Your task to perform on an android device: Add apple airpods to the cart on target, then select checkout. Image 0: 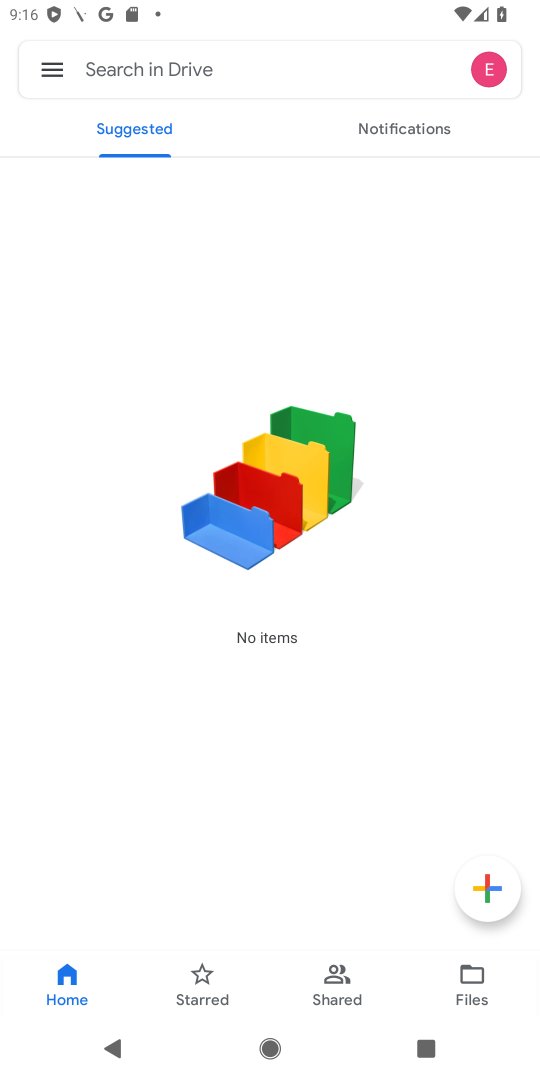
Step 0: press home button
Your task to perform on an android device: Add apple airpods to the cart on target, then select checkout. Image 1: 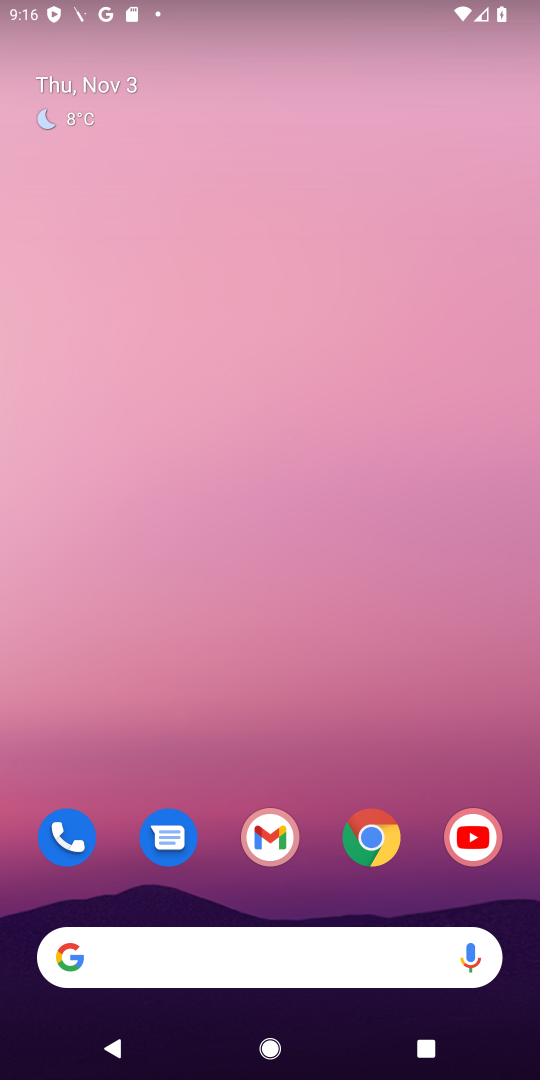
Step 1: click (360, 835)
Your task to perform on an android device: Add apple airpods to the cart on target, then select checkout. Image 2: 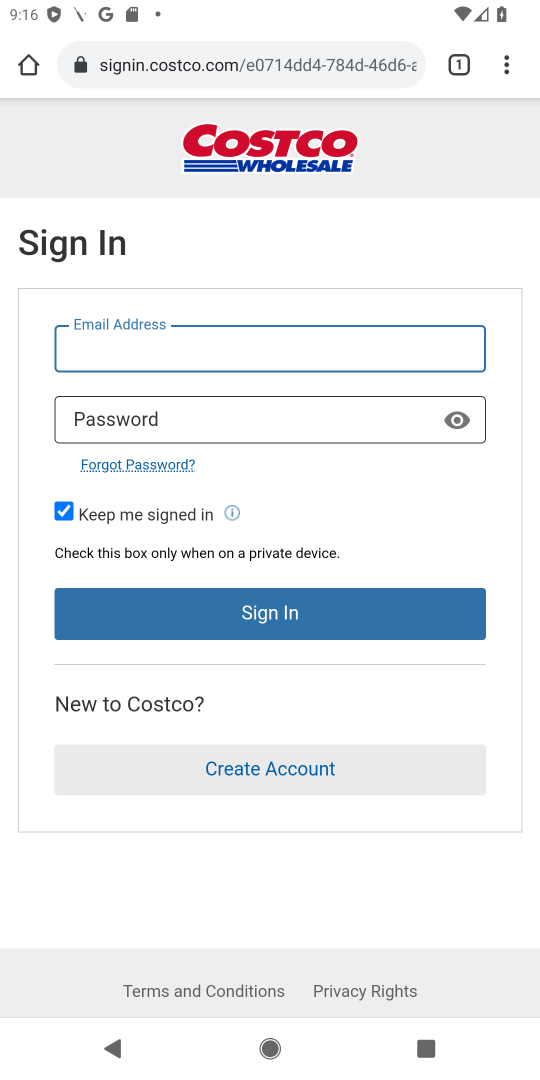
Step 2: click (318, 62)
Your task to perform on an android device: Add apple airpods to the cart on target, then select checkout. Image 3: 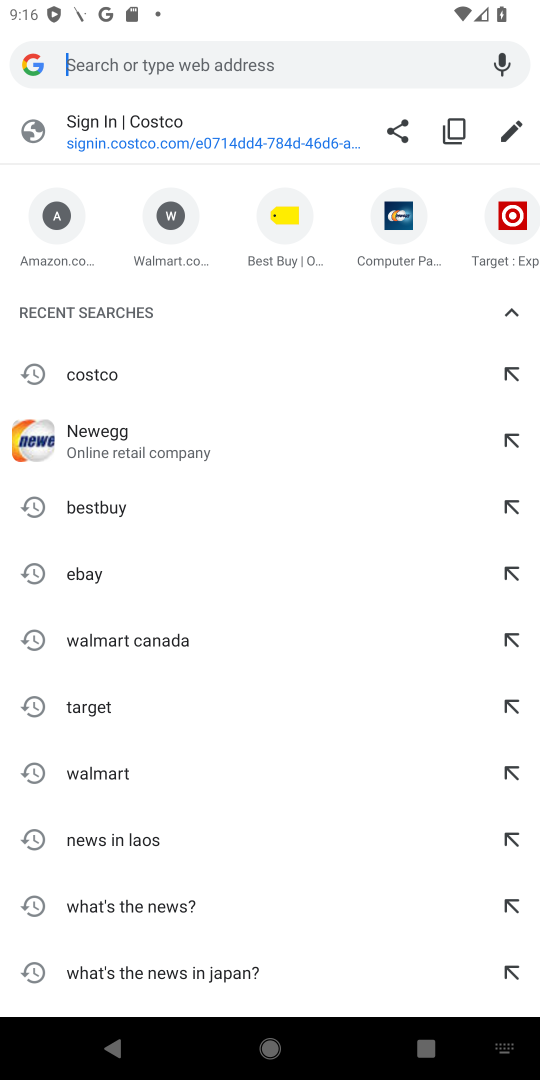
Step 3: click (78, 704)
Your task to perform on an android device: Add apple airpods to the cart on target, then select checkout. Image 4: 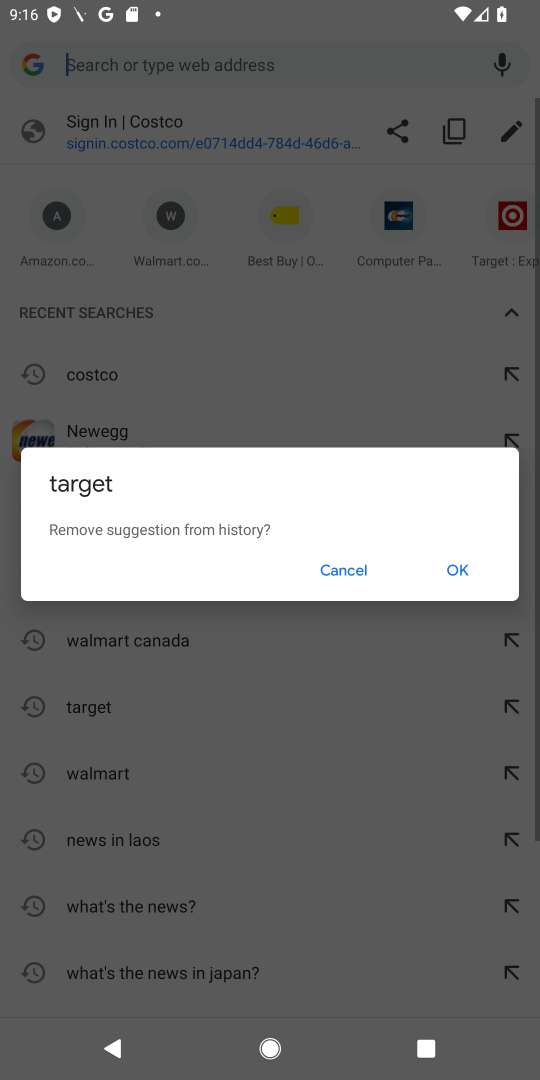
Step 4: click (356, 572)
Your task to perform on an android device: Add apple airpods to the cart on target, then select checkout. Image 5: 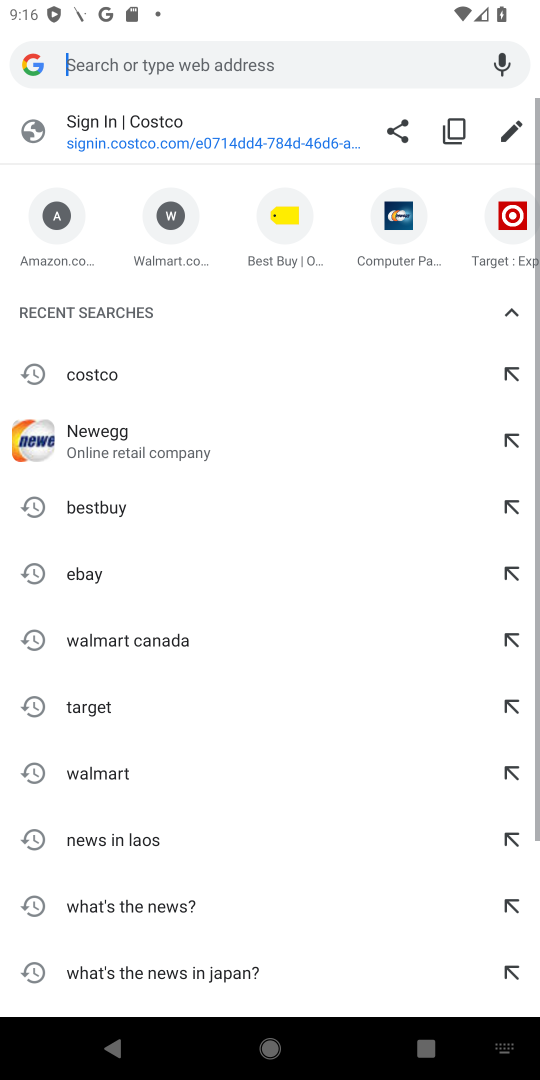
Step 5: click (95, 708)
Your task to perform on an android device: Add apple airpods to the cart on target, then select checkout. Image 6: 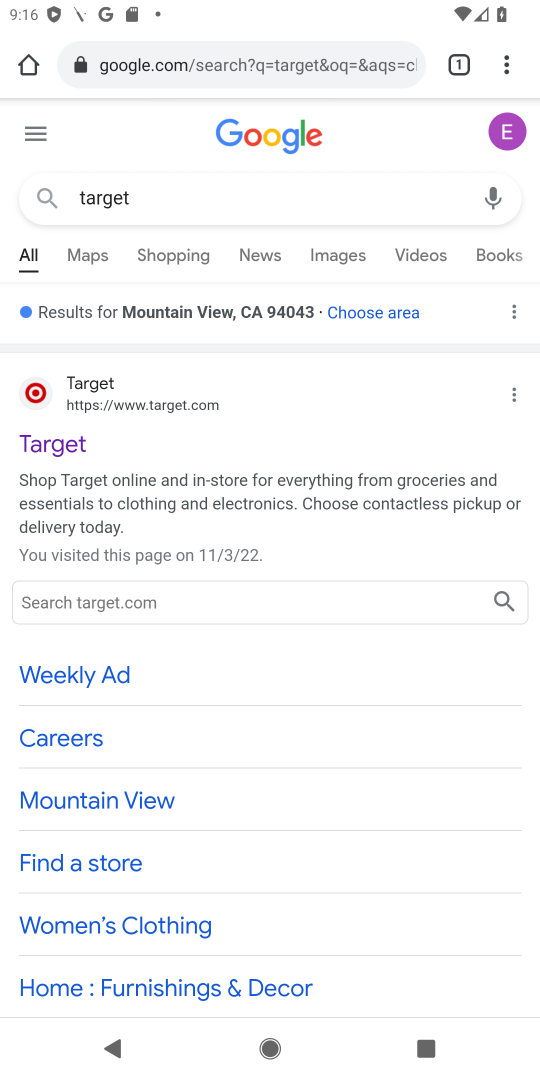
Step 6: click (63, 445)
Your task to perform on an android device: Add apple airpods to the cart on target, then select checkout. Image 7: 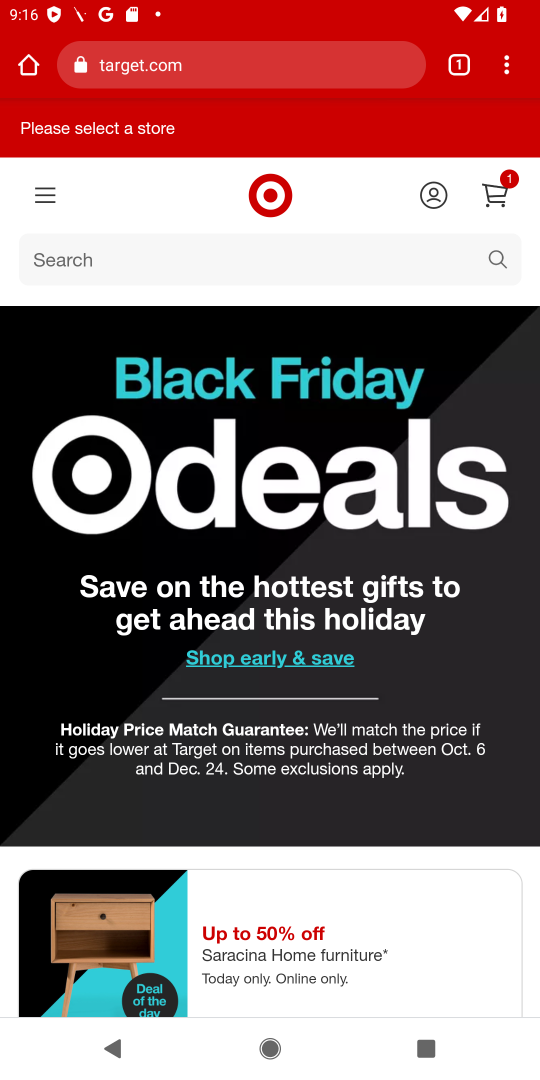
Step 7: click (162, 252)
Your task to perform on an android device: Add apple airpods to the cart on target, then select checkout. Image 8: 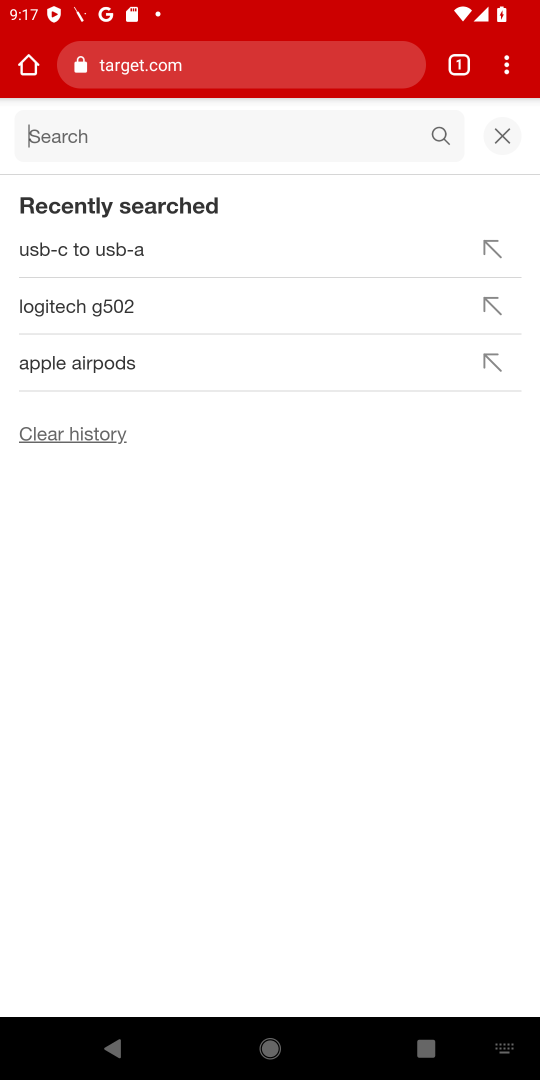
Step 8: type " apple airpods"
Your task to perform on an android device: Add apple airpods to the cart on target, then select checkout. Image 9: 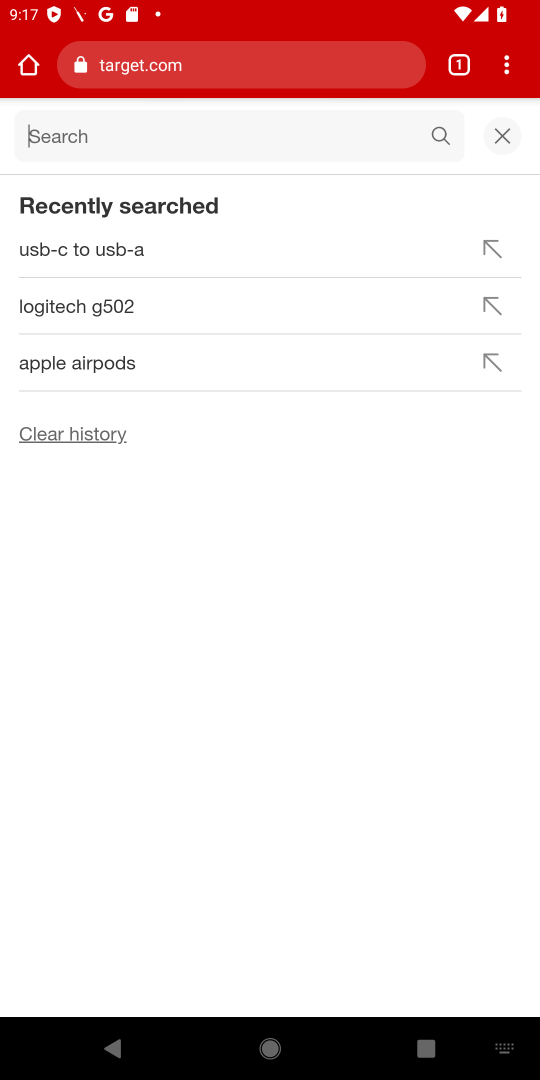
Step 9: press enter
Your task to perform on an android device: Add apple airpods to the cart on target, then select checkout. Image 10: 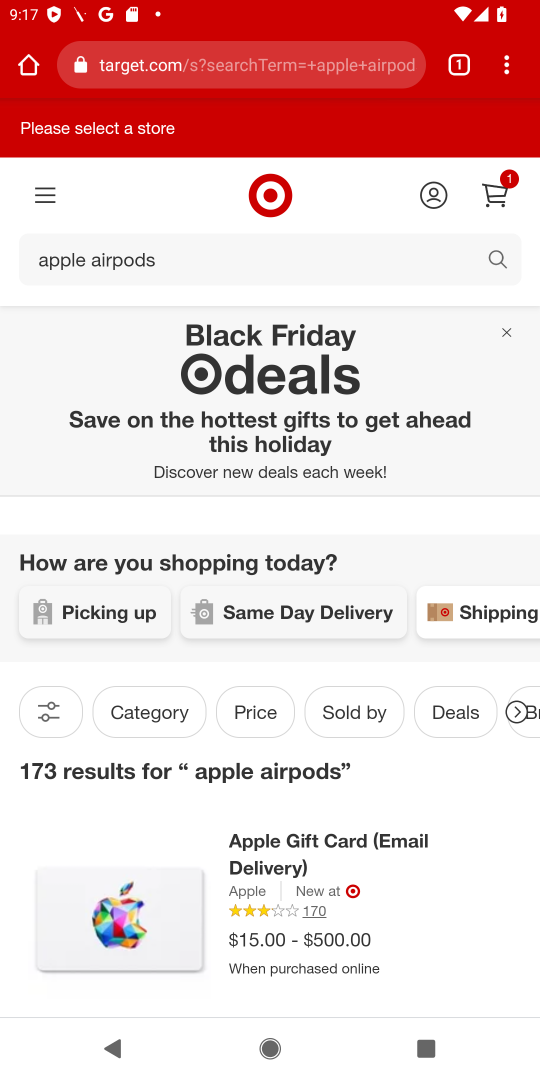
Step 10: drag from (433, 901) to (419, 328)
Your task to perform on an android device: Add apple airpods to the cart on target, then select checkout. Image 11: 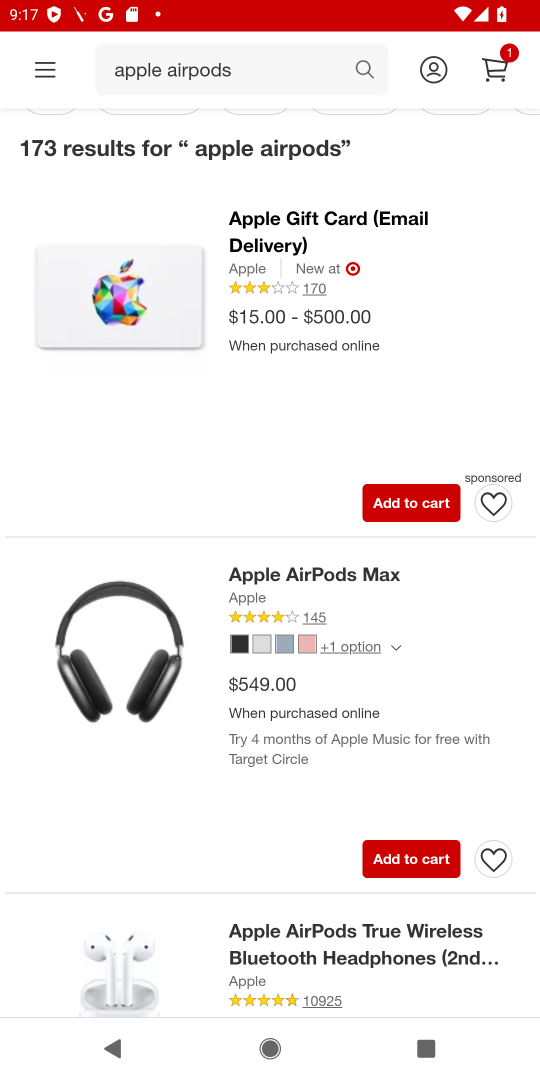
Step 11: click (413, 861)
Your task to perform on an android device: Add apple airpods to the cart on target, then select checkout. Image 12: 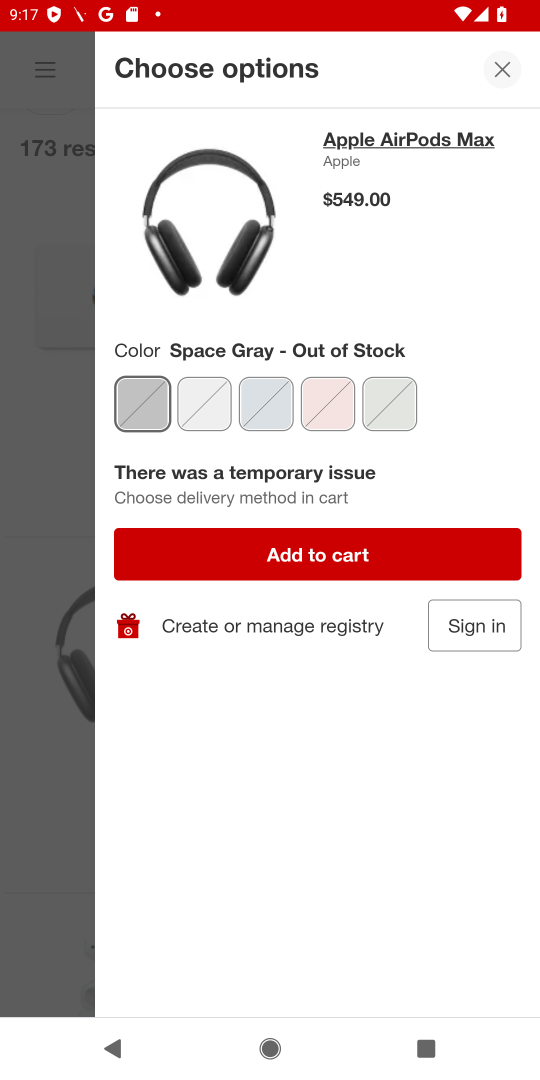
Step 12: click (326, 552)
Your task to perform on an android device: Add apple airpods to the cart on target, then select checkout. Image 13: 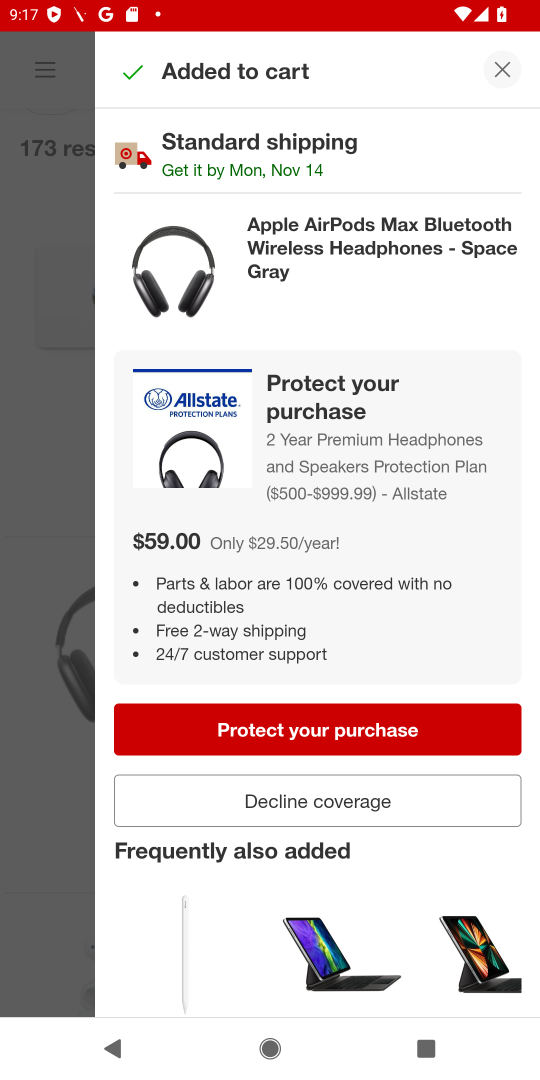
Step 13: click (313, 803)
Your task to perform on an android device: Add apple airpods to the cart on target, then select checkout. Image 14: 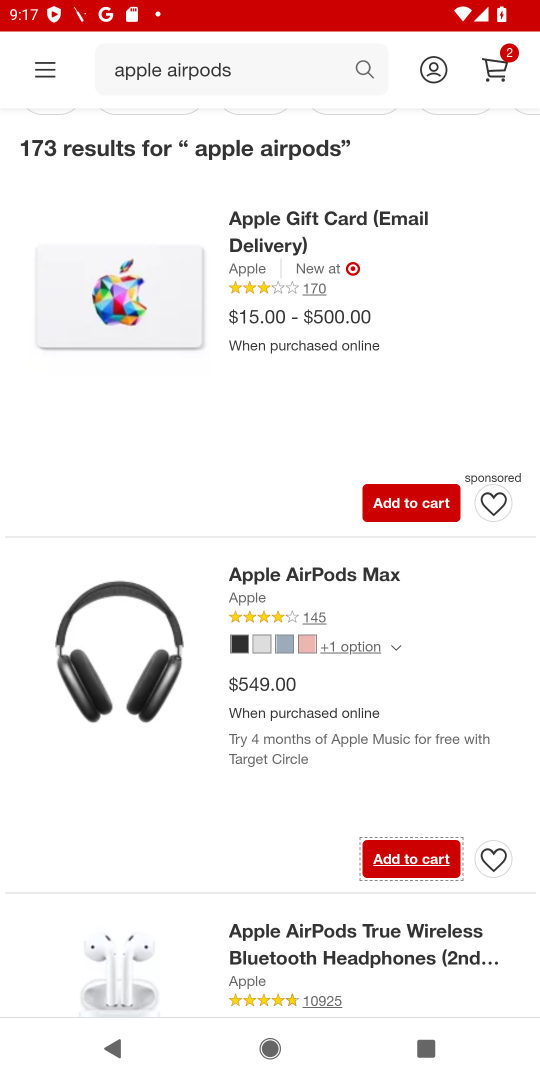
Step 14: click (497, 64)
Your task to perform on an android device: Add apple airpods to the cart on target, then select checkout. Image 15: 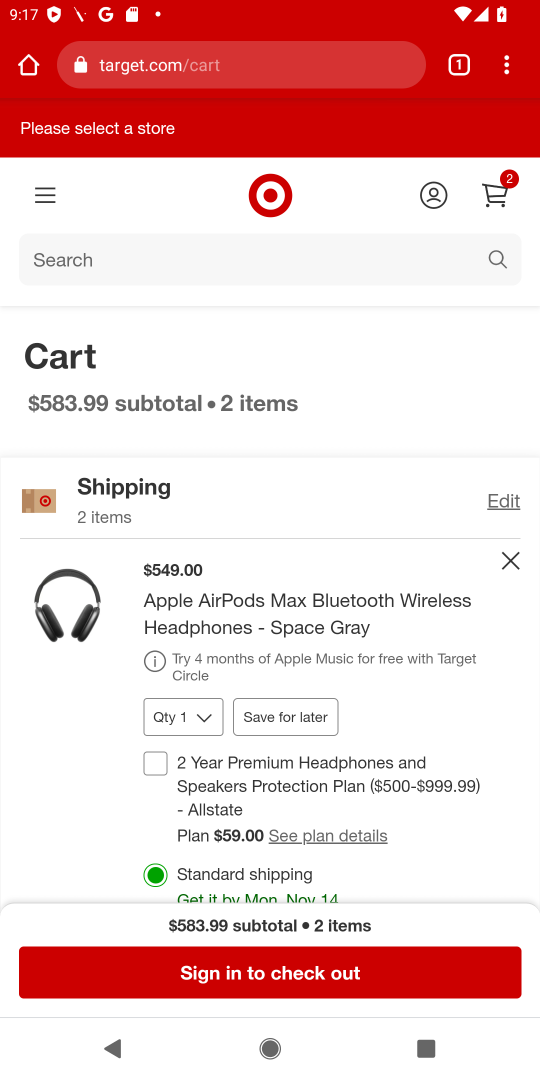
Step 15: drag from (305, 861) to (385, 335)
Your task to perform on an android device: Add apple airpods to the cart on target, then select checkout. Image 16: 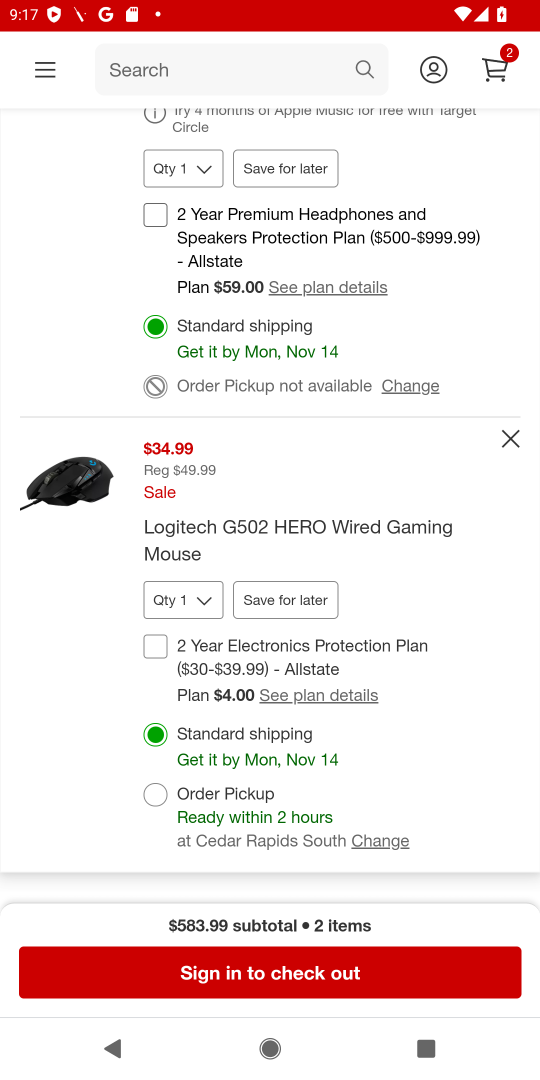
Step 16: drag from (300, 786) to (335, 490)
Your task to perform on an android device: Add apple airpods to the cart on target, then select checkout. Image 17: 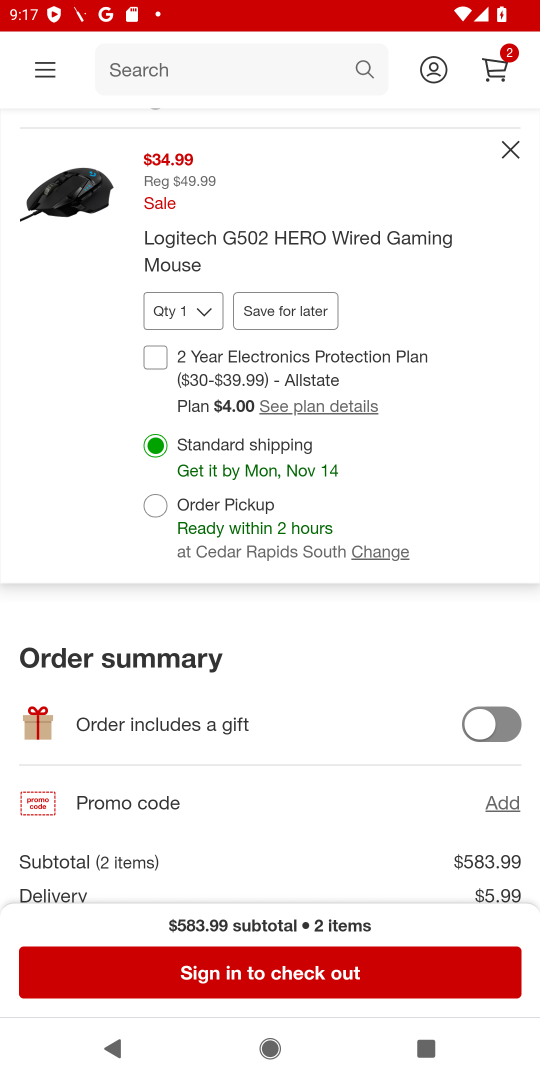
Step 17: click (514, 151)
Your task to perform on an android device: Add apple airpods to the cart on target, then select checkout. Image 18: 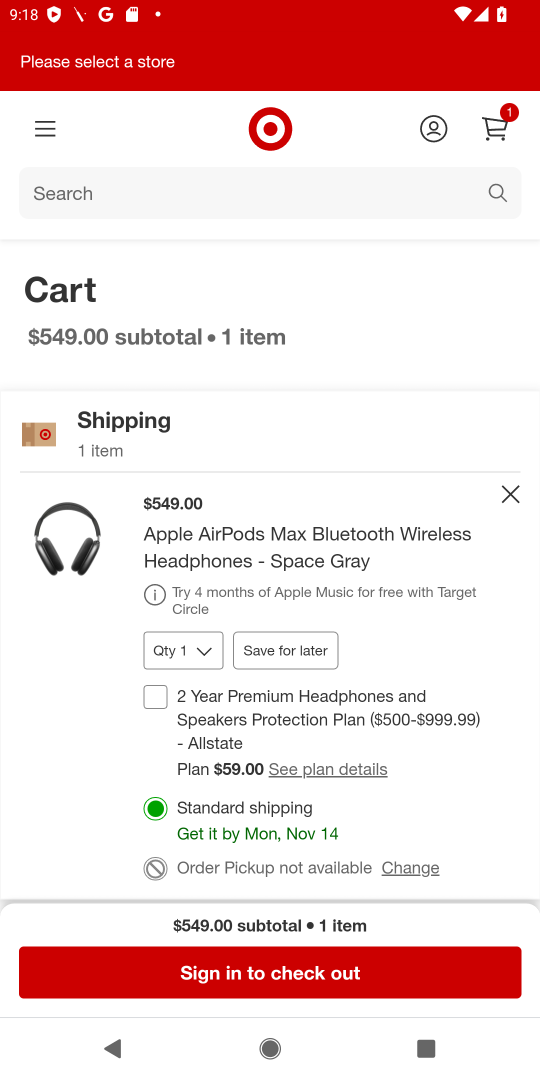
Step 18: click (323, 975)
Your task to perform on an android device: Add apple airpods to the cart on target, then select checkout. Image 19: 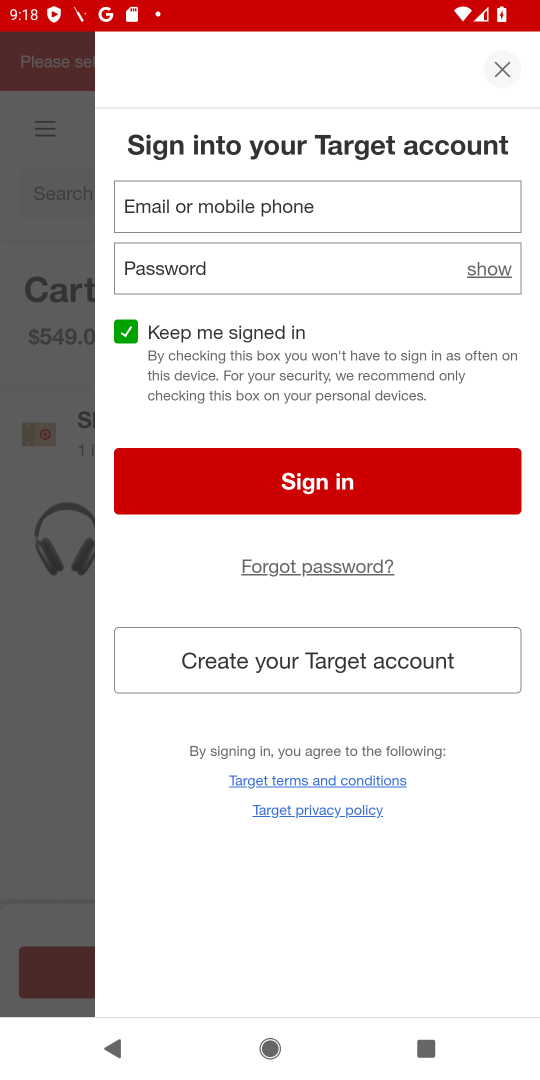
Step 19: task complete